Your task to perform on an android device: Open Youtube and go to "Your channel" Image 0: 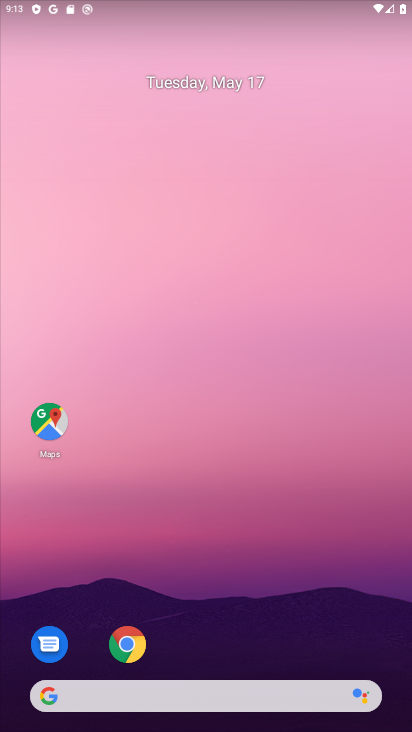
Step 0: drag from (218, 642) to (250, 300)
Your task to perform on an android device: Open Youtube and go to "Your channel" Image 1: 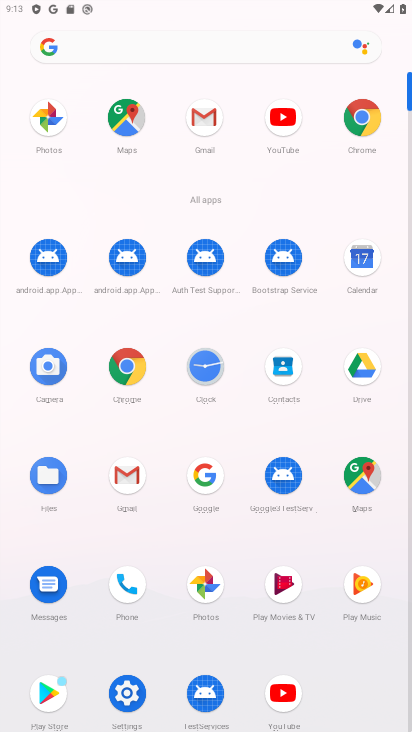
Step 1: click (284, 683)
Your task to perform on an android device: Open Youtube and go to "Your channel" Image 2: 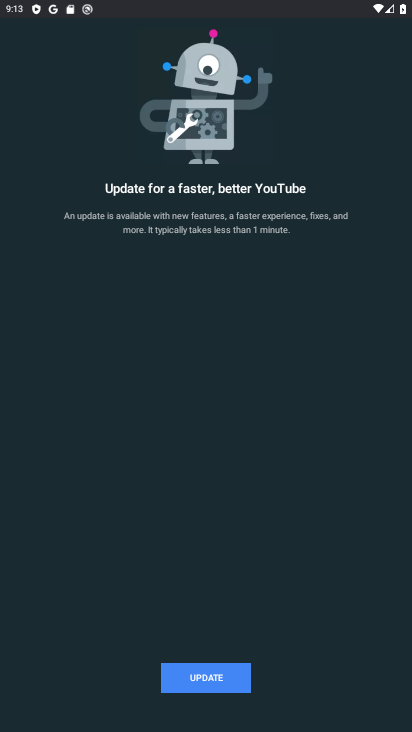
Step 2: click (222, 689)
Your task to perform on an android device: Open Youtube and go to "Your channel" Image 3: 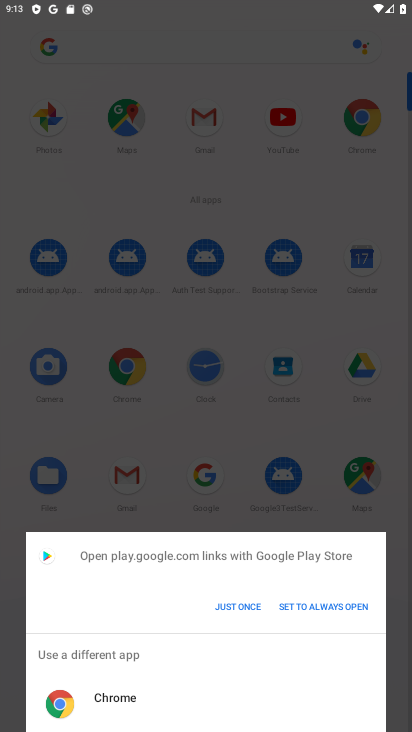
Step 3: click (235, 603)
Your task to perform on an android device: Open Youtube and go to "Your channel" Image 4: 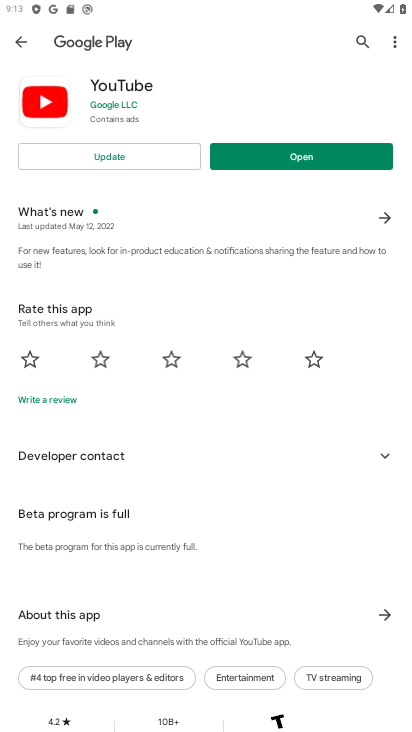
Step 4: click (111, 165)
Your task to perform on an android device: Open Youtube and go to "Your channel" Image 5: 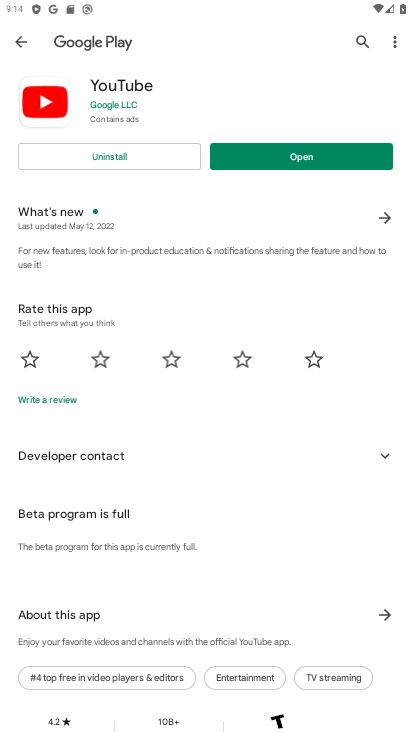
Step 5: click (309, 164)
Your task to perform on an android device: Open Youtube and go to "Your channel" Image 6: 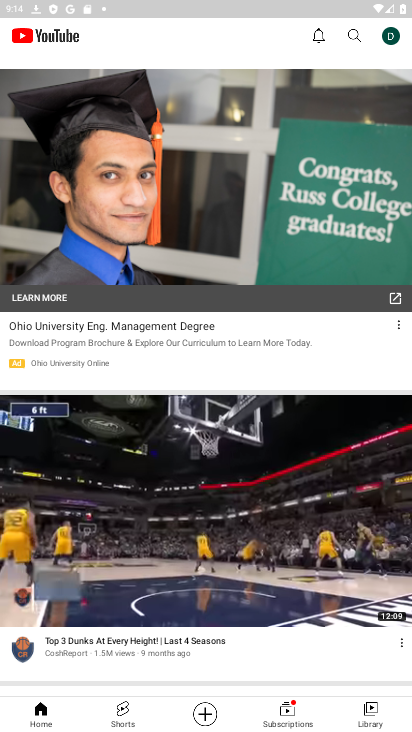
Step 6: click (354, 43)
Your task to perform on an android device: Open Youtube and go to "Your channel" Image 7: 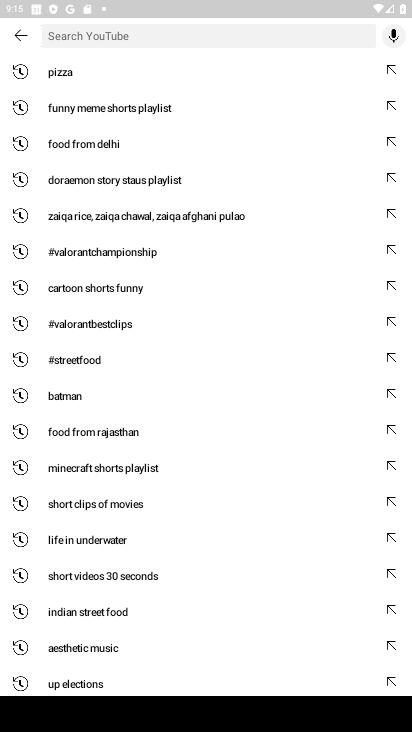
Step 7: type "your channel"
Your task to perform on an android device: Open Youtube and go to "Your channel" Image 8: 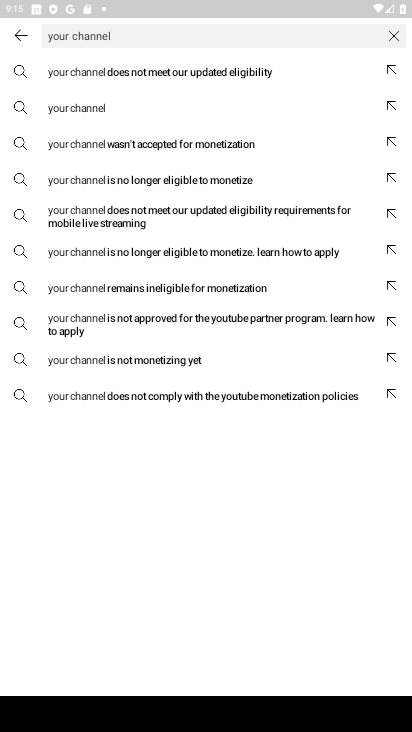
Step 8: click (138, 117)
Your task to perform on an android device: Open Youtube and go to "Your channel" Image 9: 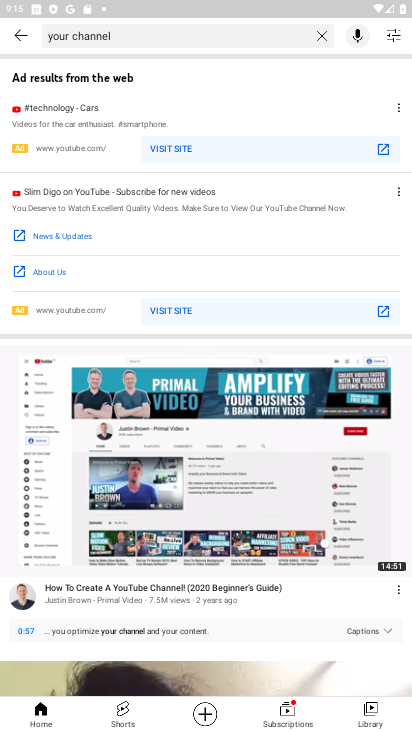
Step 9: task complete